Your task to perform on an android device: find which apps use the phone's location Image 0: 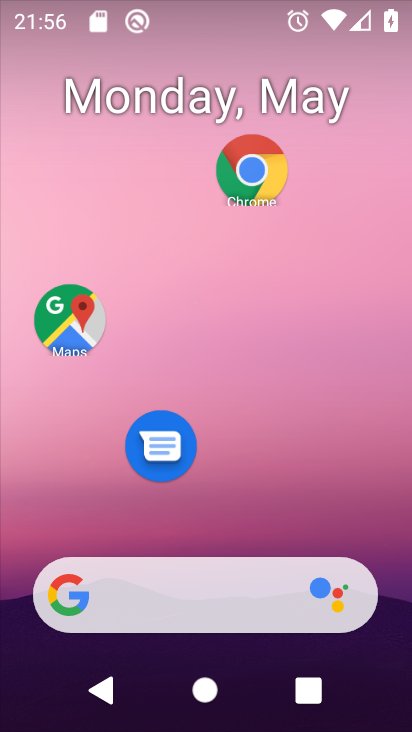
Step 0: drag from (243, 307) to (261, 182)
Your task to perform on an android device: find which apps use the phone's location Image 1: 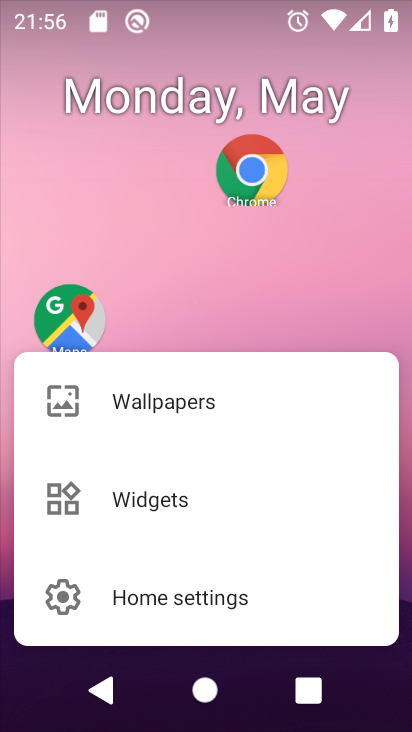
Step 1: click (213, 286)
Your task to perform on an android device: find which apps use the phone's location Image 2: 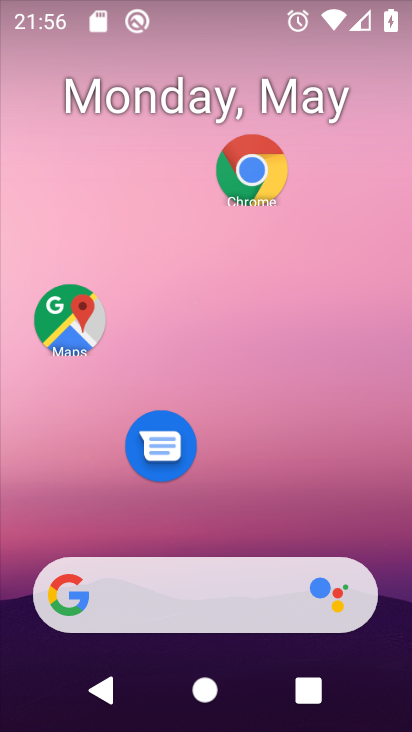
Step 2: drag from (244, 521) to (241, 17)
Your task to perform on an android device: find which apps use the phone's location Image 3: 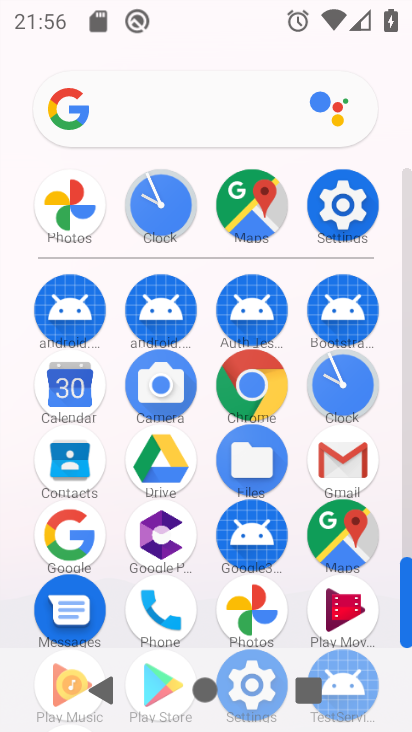
Step 3: click (348, 197)
Your task to perform on an android device: find which apps use the phone's location Image 4: 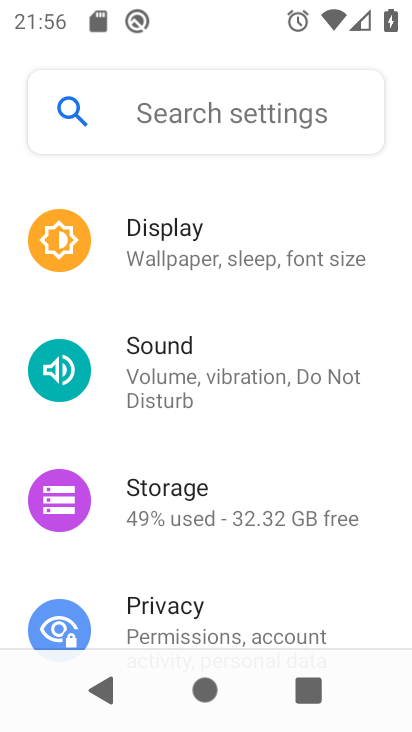
Step 4: drag from (211, 577) to (221, 82)
Your task to perform on an android device: find which apps use the phone's location Image 5: 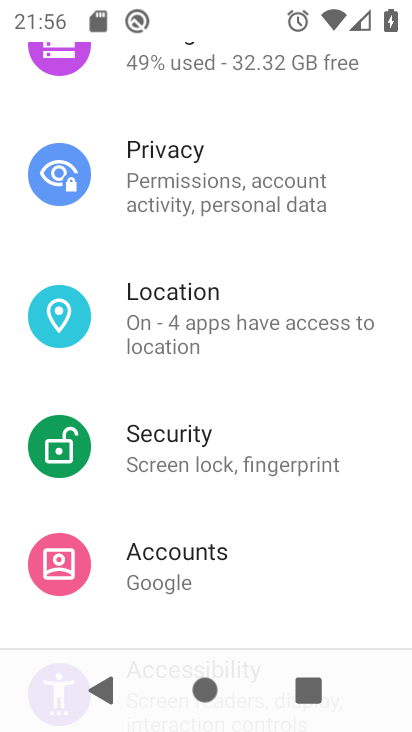
Step 5: click (223, 304)
Your task to perform on an android device: find which apps use the phone's location Image 6: 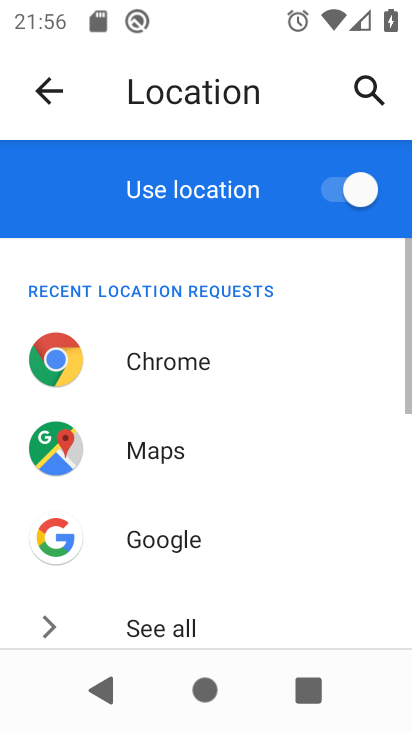
Step 6: drag from (232, 589) to (238, 206)
Your task to perform on an android device: find which apps use the phone's location Image 7: 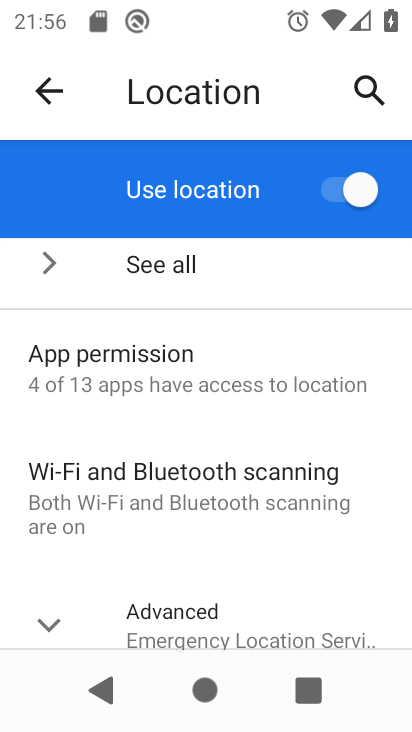
Step 7: click (81, 348)
Your task to perform on an android device: find which apps use the phone's location Image 8: 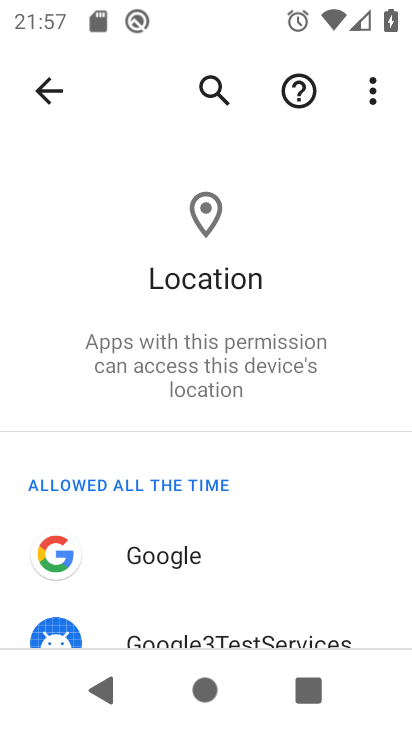
Step 8: task complete